Your task to perform on an android device: What's the weather today? Image 0: 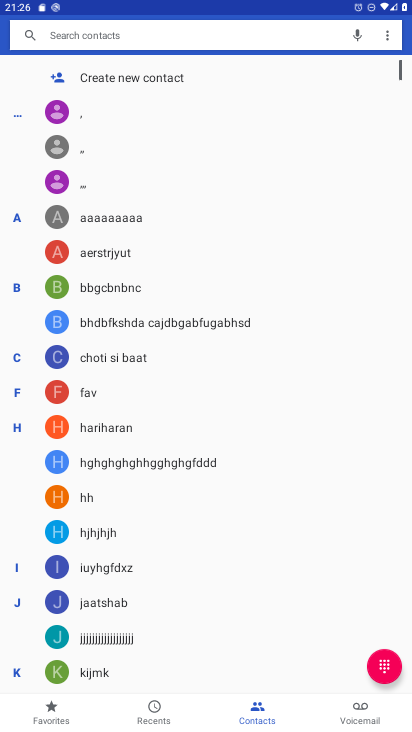
Step 0: press home button
Your task to perform on an android device: What's the weather today? Image 1: 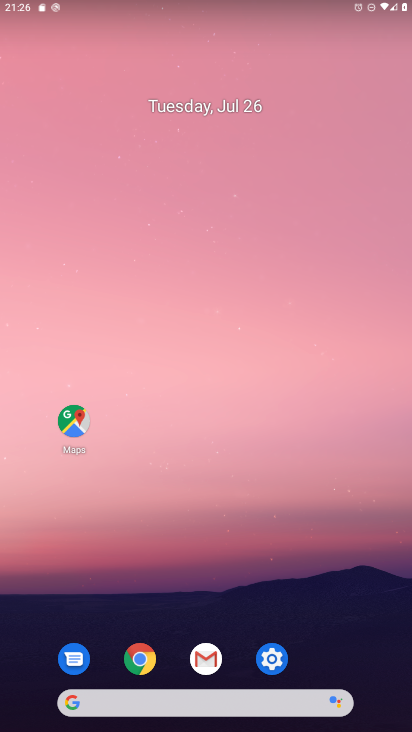
Step 1: click (132, 707)
Your task to perform on an android device: What's the weather today? Image 2: 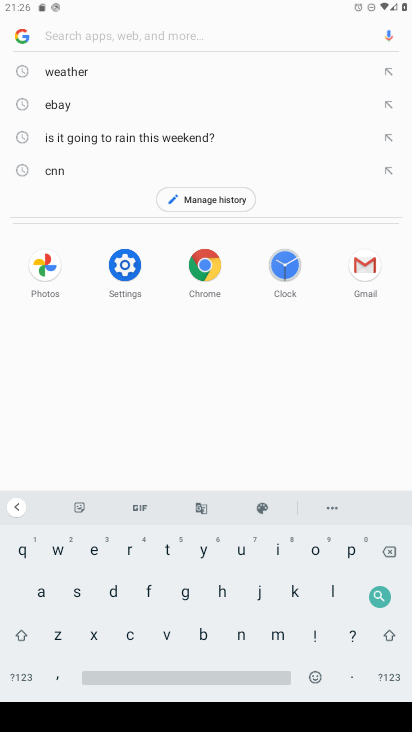
Step 2: click (103, 73)
Your task to perform on an android device: What's the weather today? Image 3: 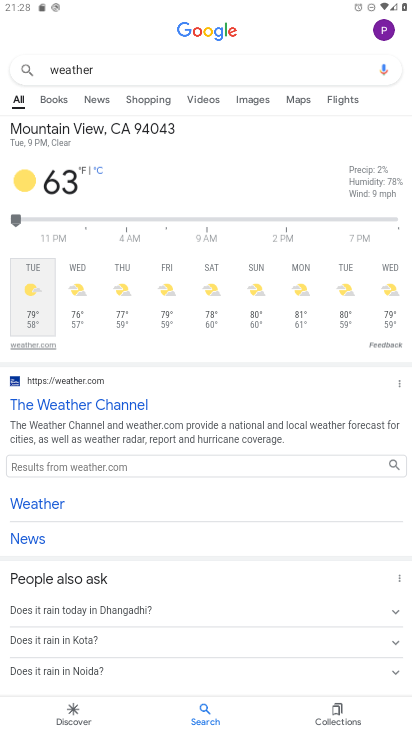
Step 3: task complete